Your task to perform on an android device: toggle pop-ups in chrome Image 0: 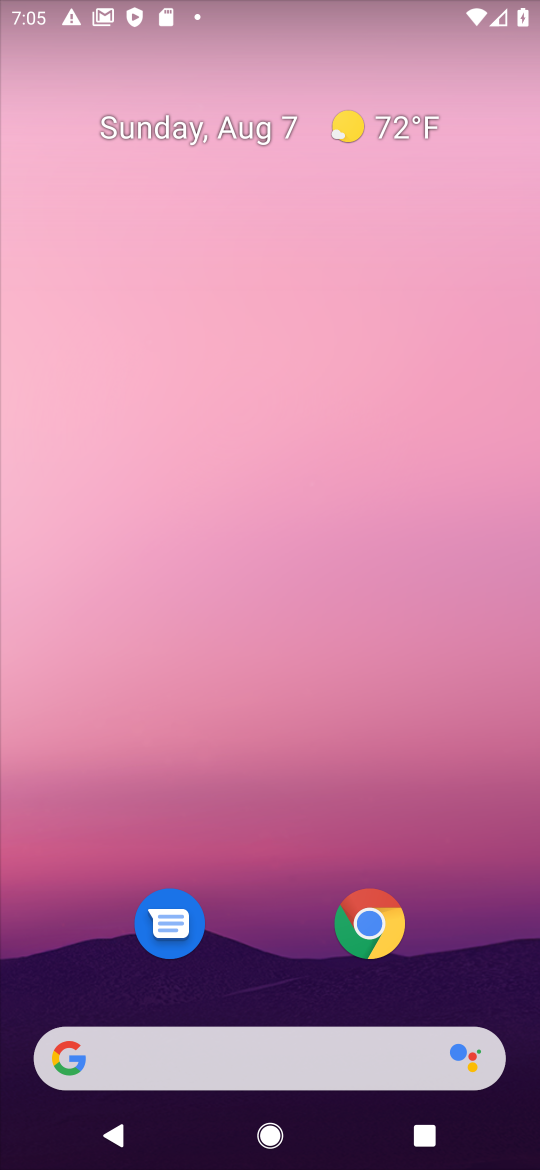
Step 0: drag from (505, 995) to (262, 70)
Your task to perform on an android device: toggle pop-ups in chrome Image 1: 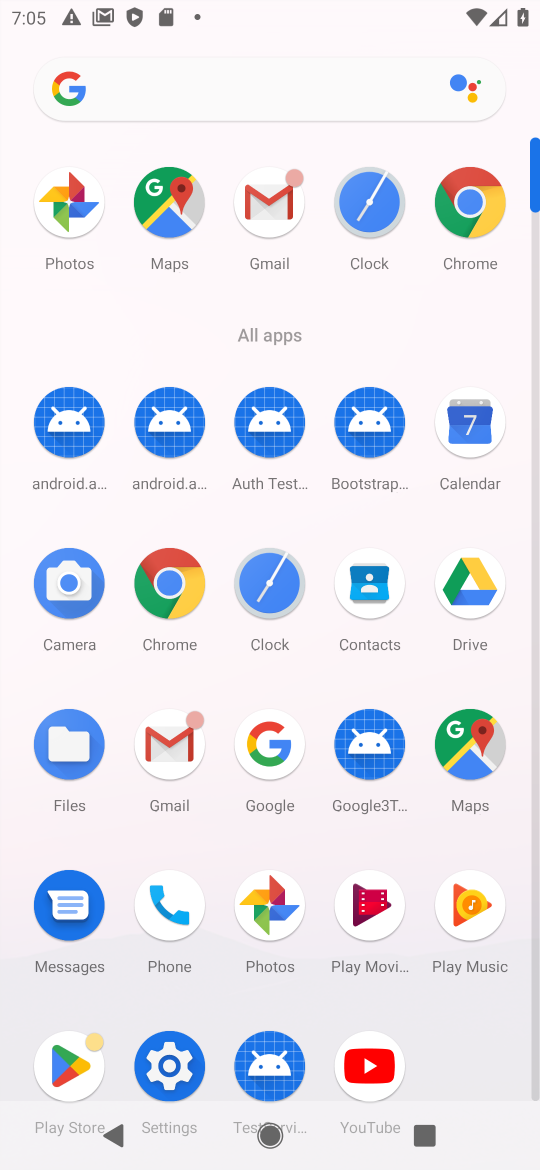
Step 1: click (159, 610)
Your task to perform on an android device: toggle pop-ups in chrome Image 2: 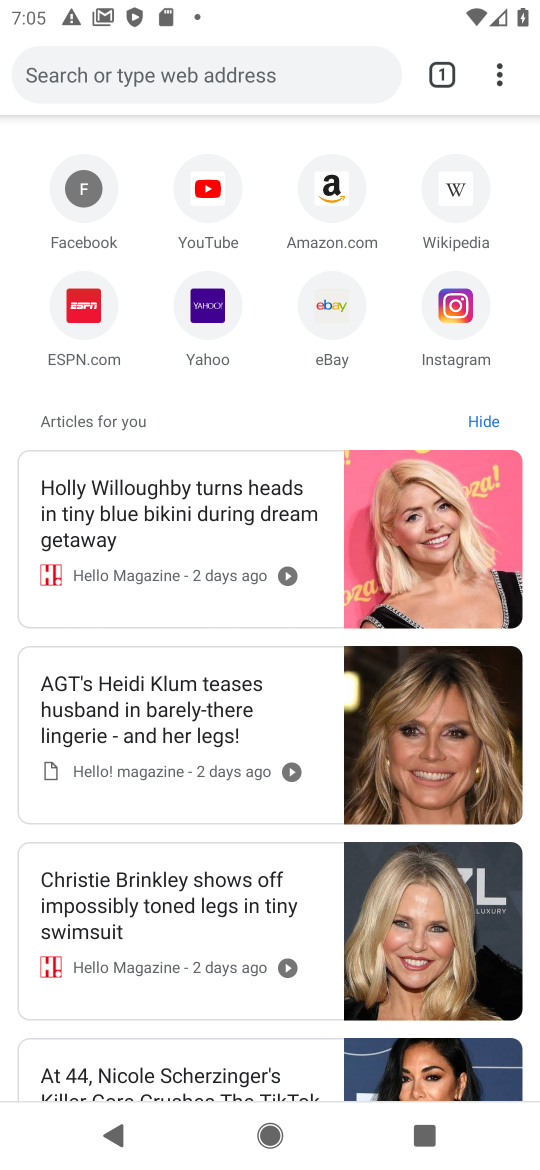
Step 2: click (496, 76)
Your task to perform on an android device: toggle pop-ups in chrome Image 3: 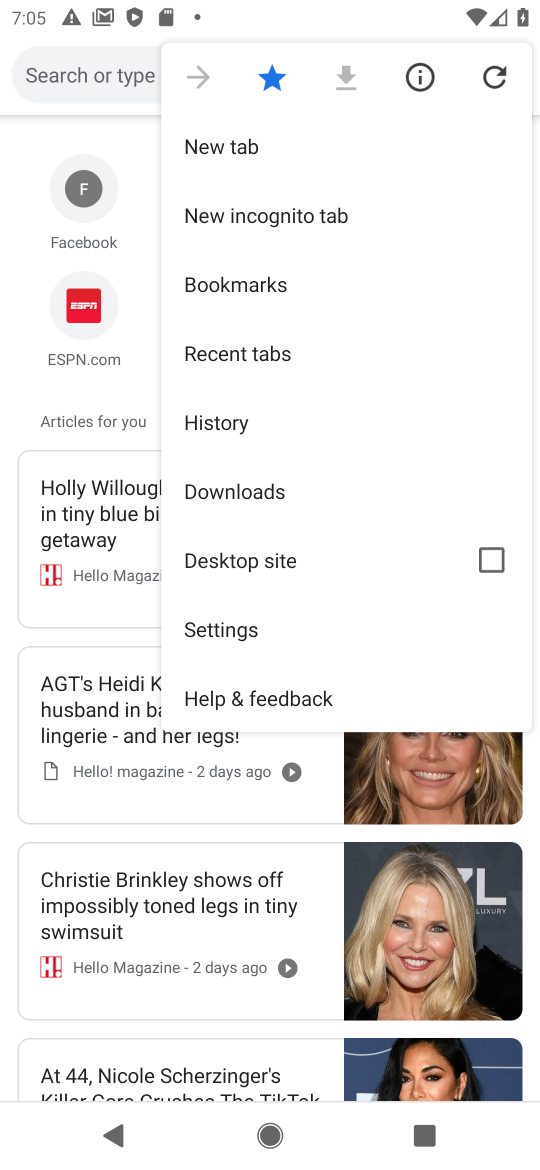
Step 3: click (252, 649)
Your task to perform on an android device: toggle pop-ups in chrome Image 4: 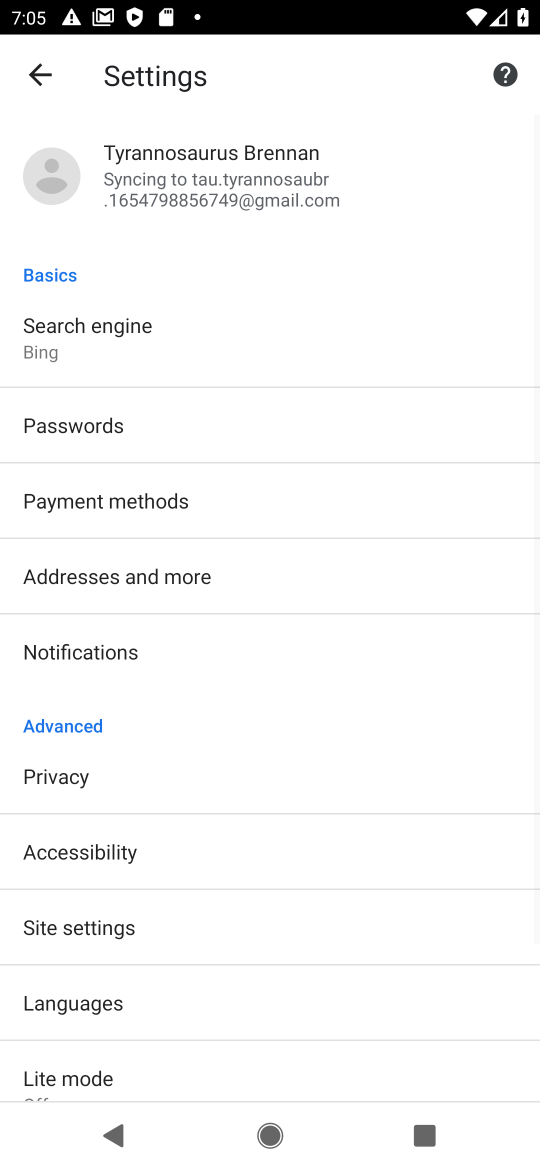
Step 4: click (140, 929)
Your task to perform on an android device: toggle pop-ups in chrome Image 5: 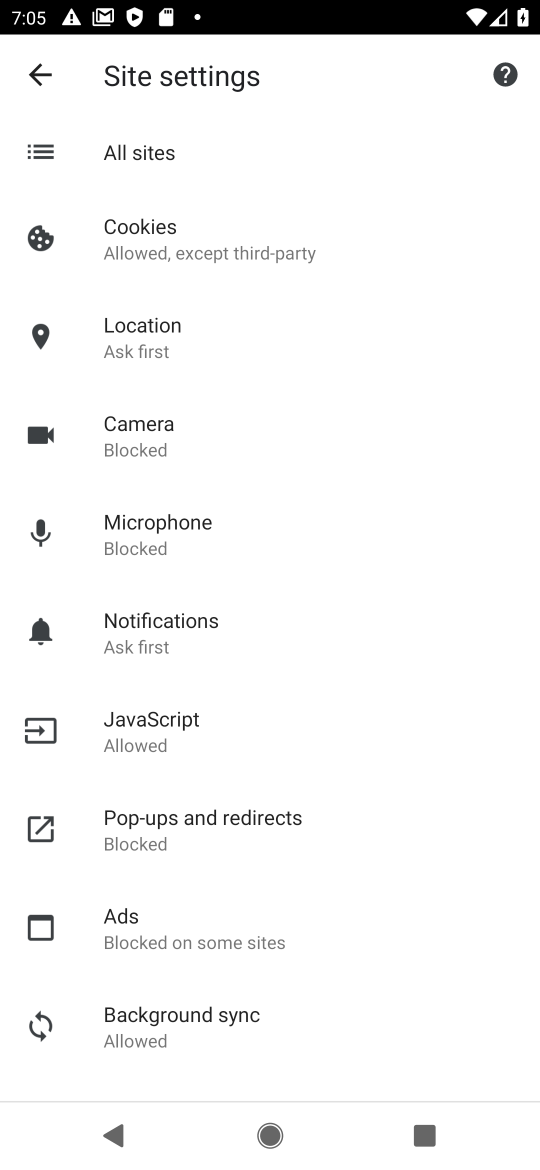
Step 5: click (155, 854)
Your task to perform on an android device: toggle pop-ups in chrome Image 6: 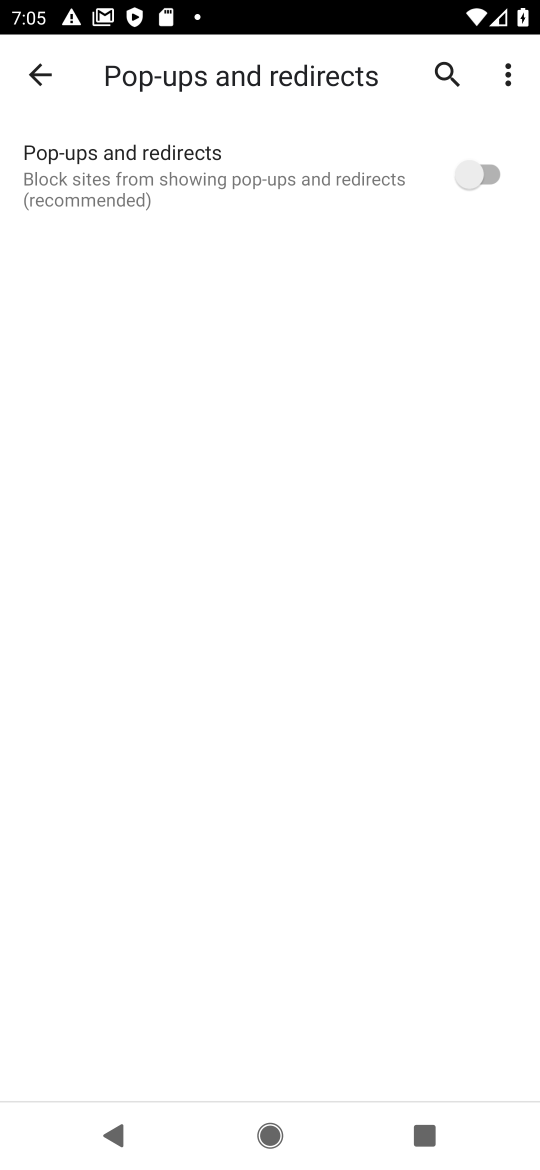
Step 6: click (480, 187)
Your task to perform on an android device: toggle pop-ups in chrome Image 7: 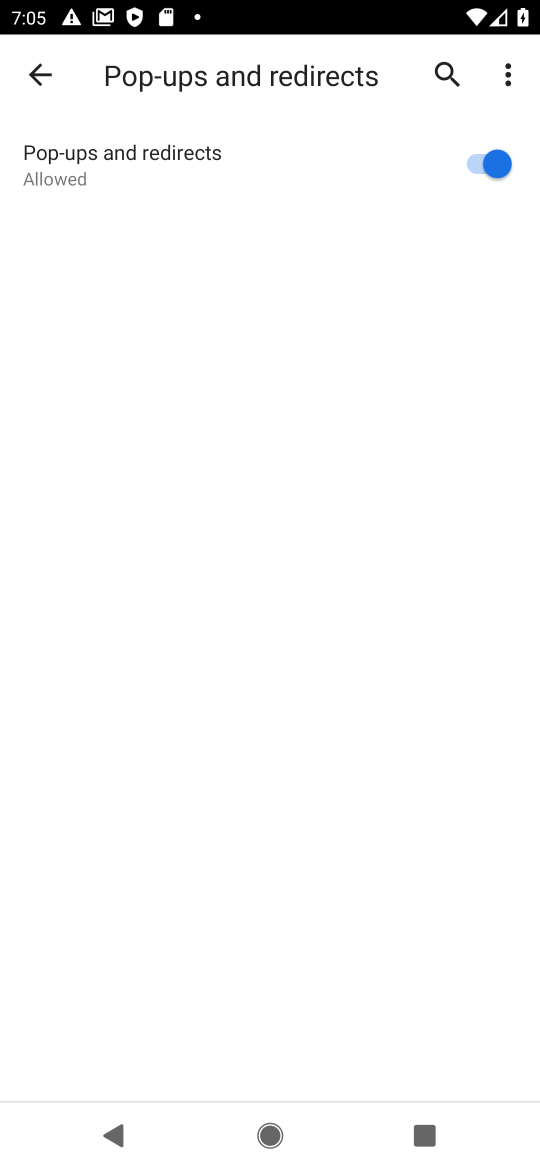
Step 7: task complete